Your task to perform on an android device: find which apps use the phone's location Image 0: 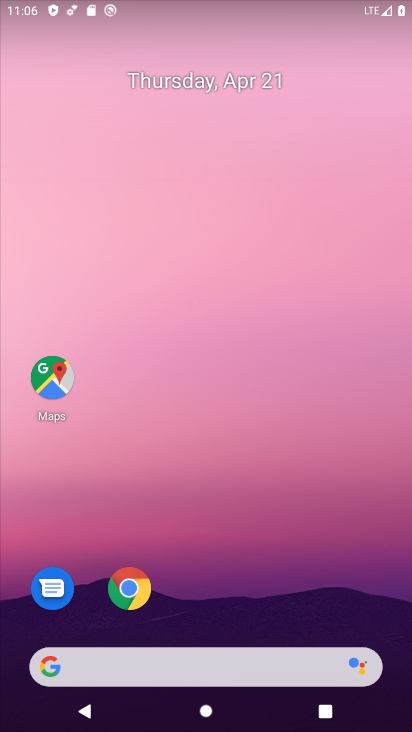
Step 0: drag from (255, 685) to (298, 158)
Your task to perform on an android device: find which apps use the phone's location Image 1: 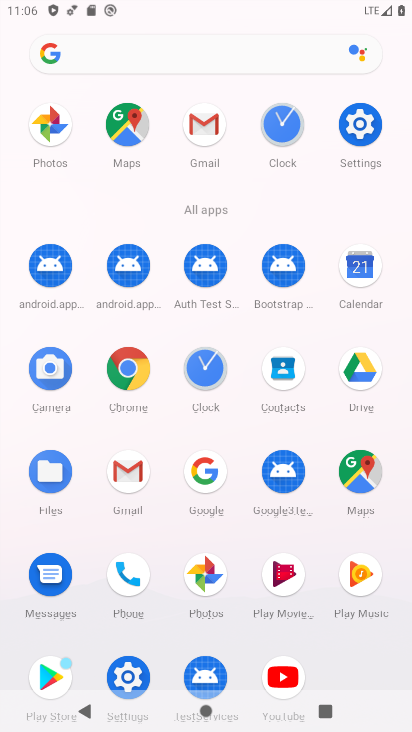
Step 1: click (357, 140)
Your task to perform on an android device: find which apps use the phone's location Image 2: 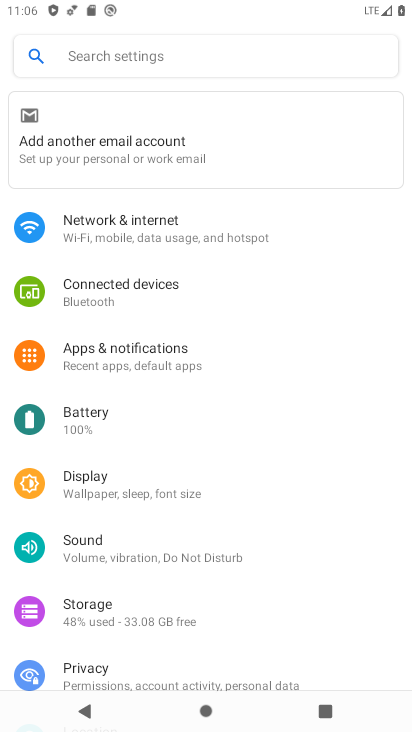
Step 2: click (112, 61)
Your task to perform on an android device: find which apps use the phone's location Image 3: 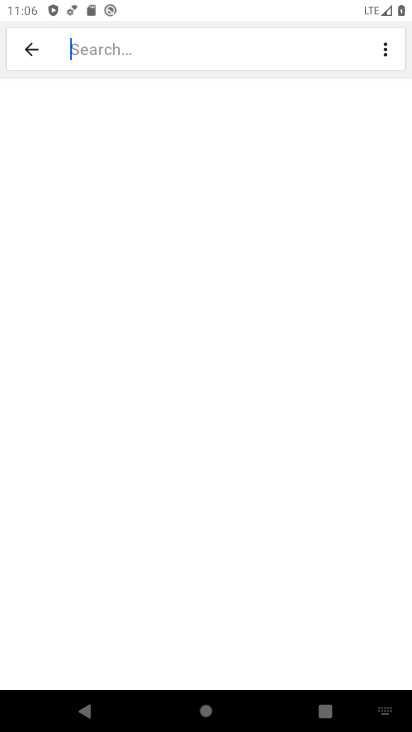
Step 3: click (381, 719)
Your task to perform on an android device: find which apps use the phone's location Image 4: 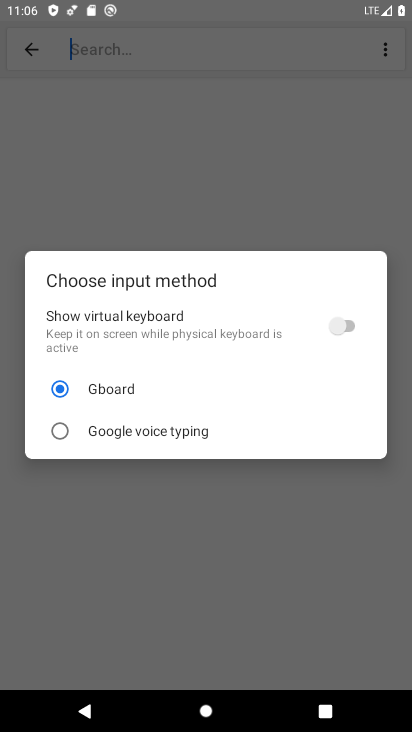
Step 4: drag from (393, 713) to (345, 338)
Your task to perform on an android device: find which apps use the phone's location Image 5: 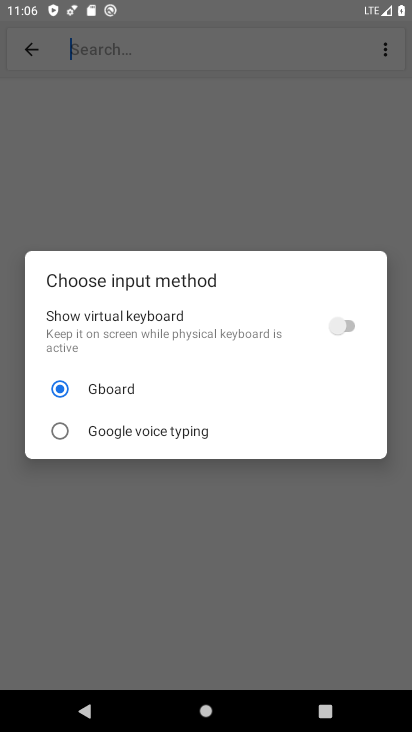
Step 5: click (348, 323)
Your task to perform on an android device: find which apps use the phone's location Image 6: 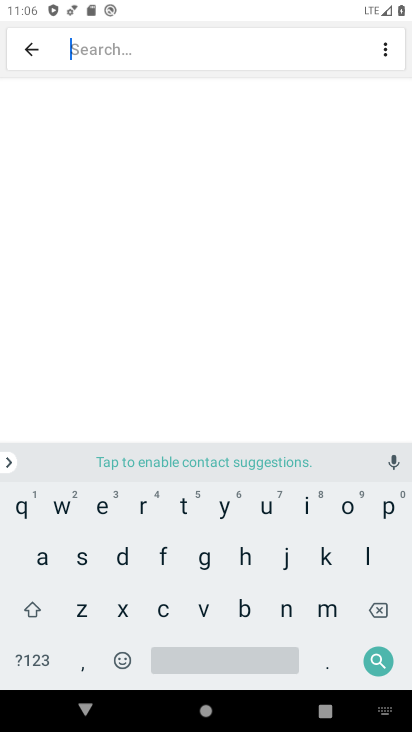
Step 6: click (370, 552)
Your task to perform on an android device: find which apps use the phone's location Image 7: 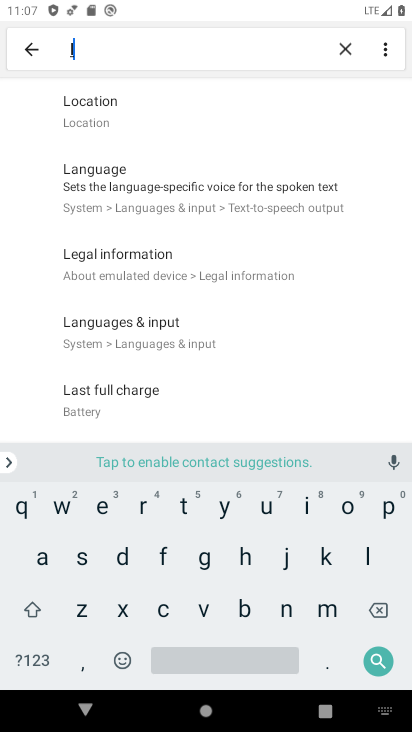
Step 7: click (111, 116)
Your task to perform on an android device: find which apps use the phone's location Image 8: 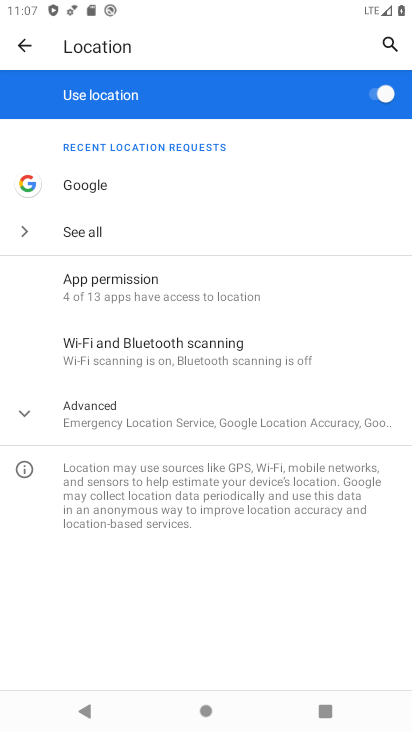
Step 8: click (56, 231)
Your task to perform on an android device: find which apps use the phone's location Image 9: 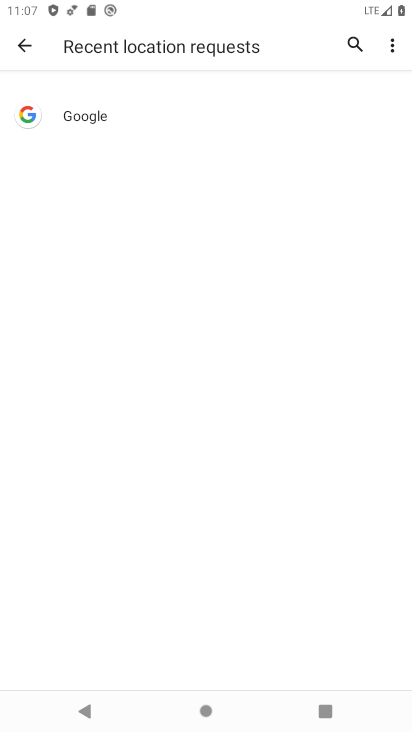
Step 9: task complete